Your task to perform on an android device: delete a single message in the gmail app Image 0: 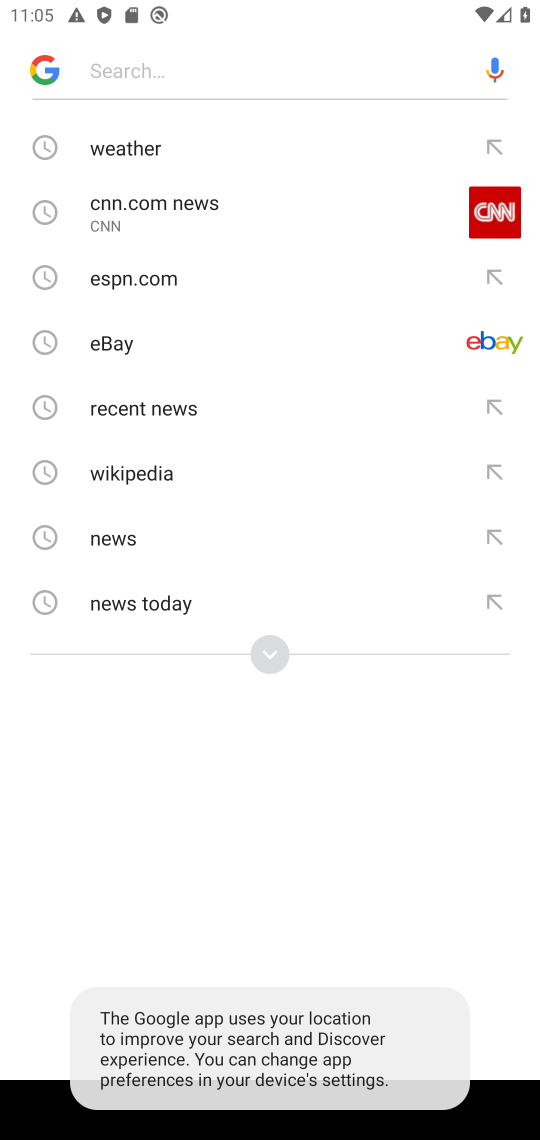
Step 0: press back button
Your task to perform on an android device: delete a single message in the gmail app Image 1: 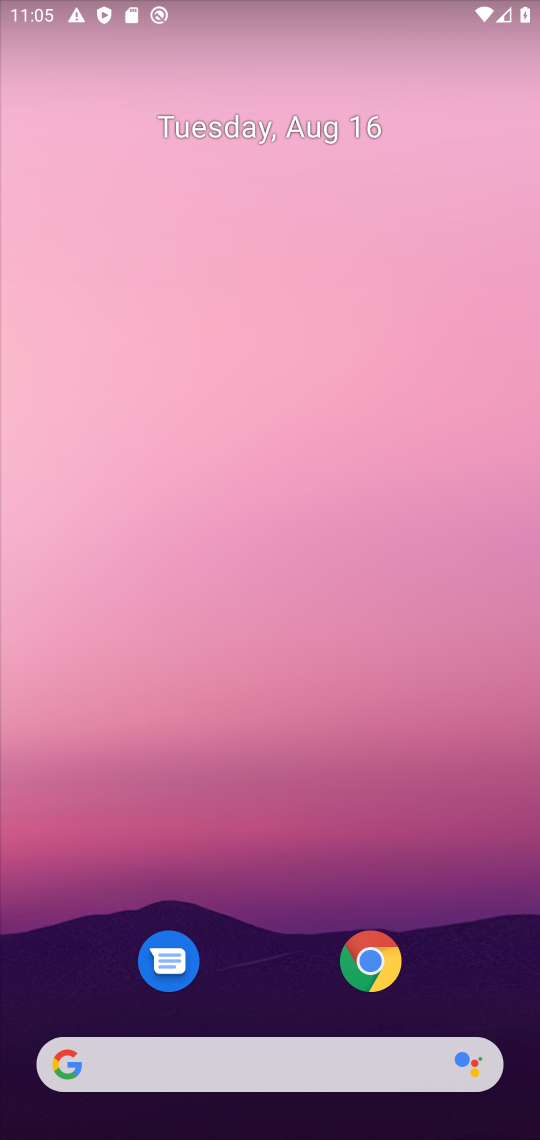
Step 1: drag from (293, 1005) to (49, 35)
Your task to perform on an android device: delete a single message in the gmail app Image 2: 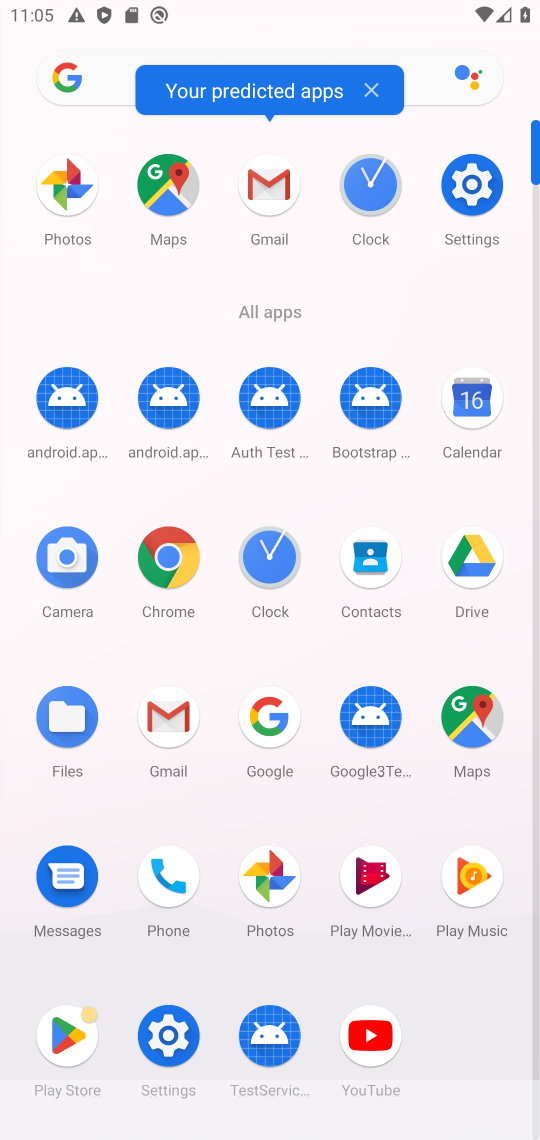
Step 2: click (176, 723)
Your task to perform on an android device: delete a single message in the gmail app Image 3: 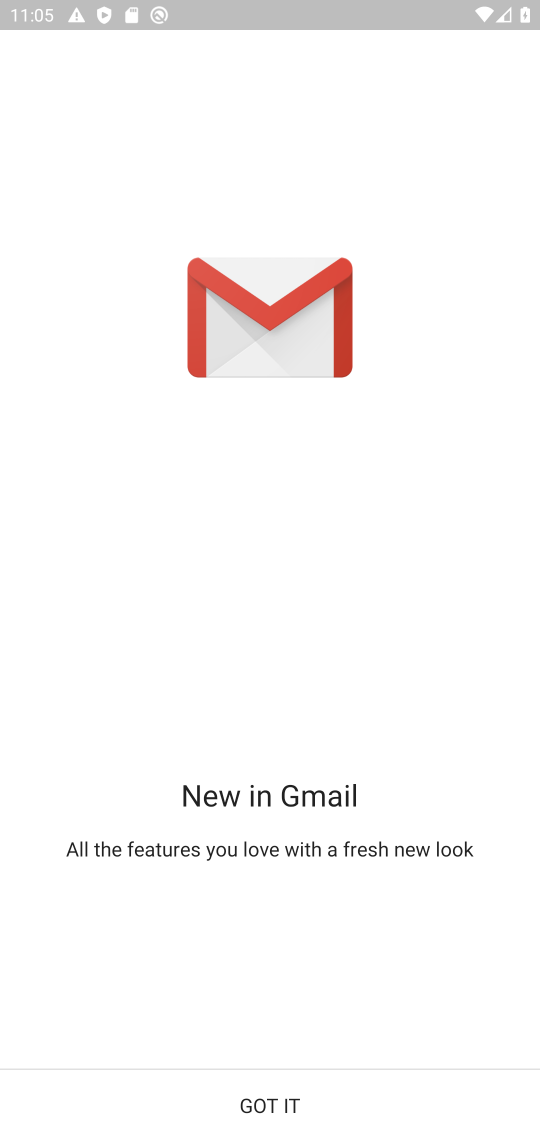
Step 3: click (352, 1113)
Your task to perform on an android device: delete a single message in the gmail app Image 4: 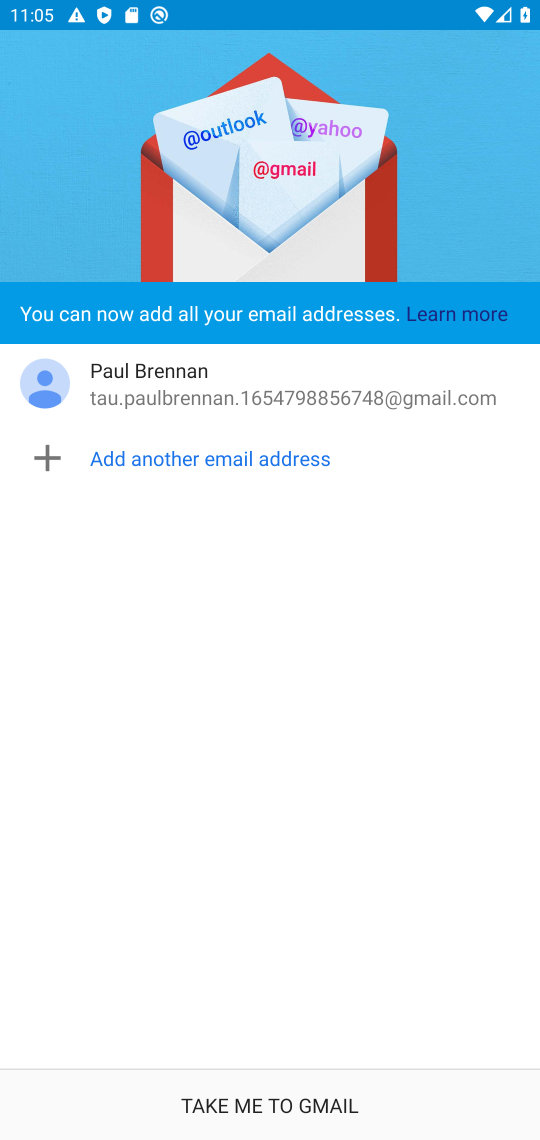
Step 4: click (352, 1113)
Your task to perform on an android device: delete a single message in the gmail app Image 5: 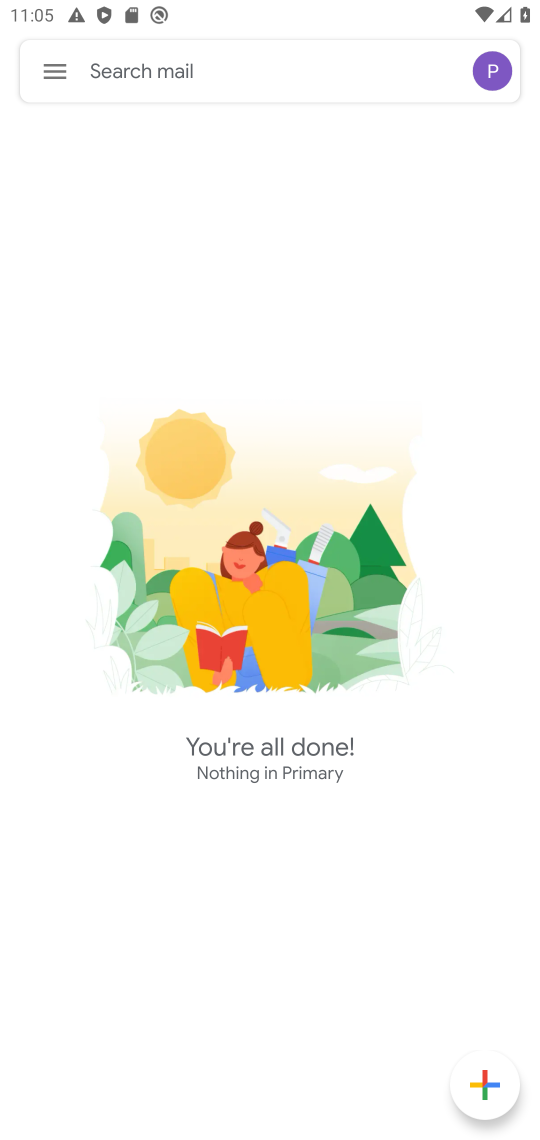
Step 5: task complete